Your task to perform on an android device: toggle notifications settings in the gmail app Image 0: 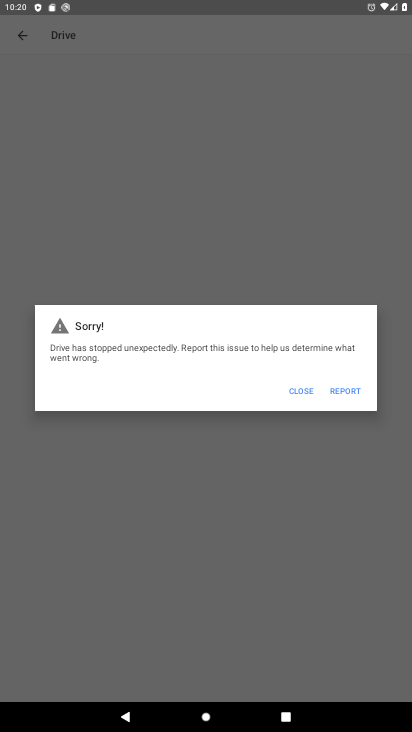
Step 0: press home button
Your task to perform on an android device: toggle notifications settings in the gmail app Image 1: 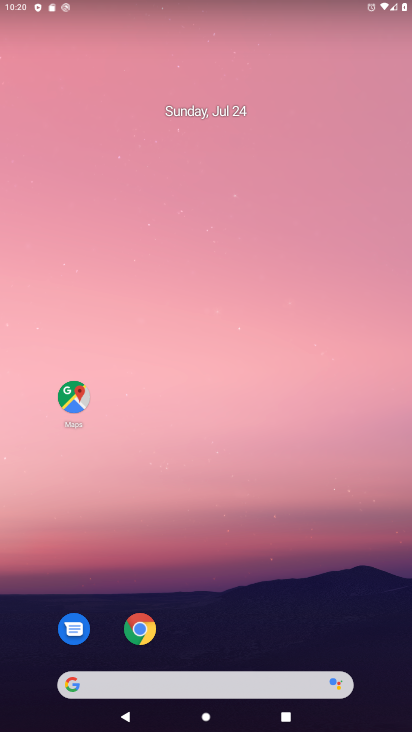
Step 1: drag from (182, 679) to (280, 190)
Your task to perform on an android device: toggle notifications settings in the gmail app Image 2: 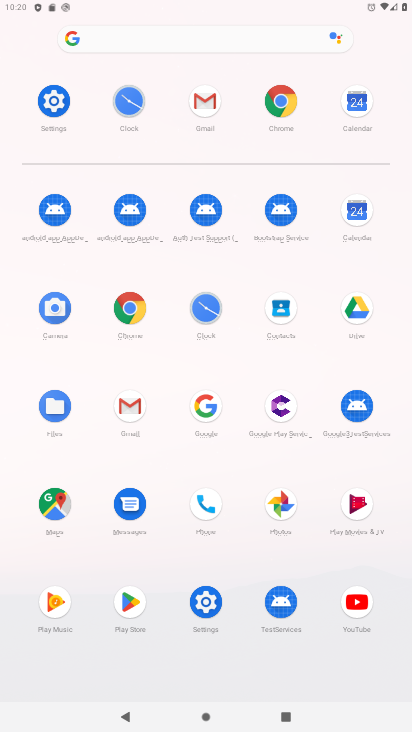
Step 2: click (204, 99)
Your task to perform on an android device: toggle notifications settings in the gmail app Image 3: 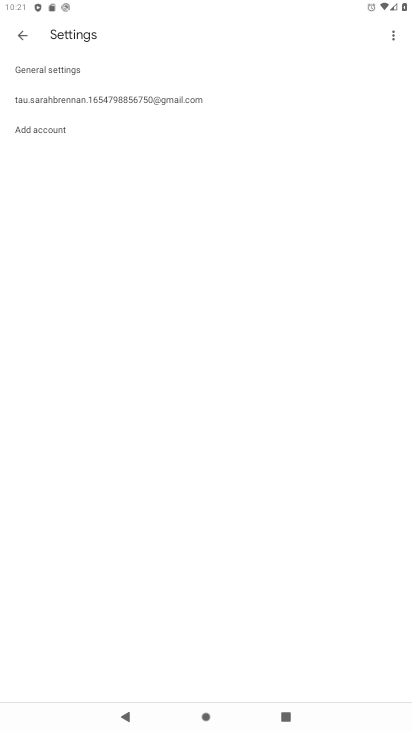
Step 3: click (70, 100)
Your task to perform on an android device: toggle notifications settings in the gmail app Image 4: 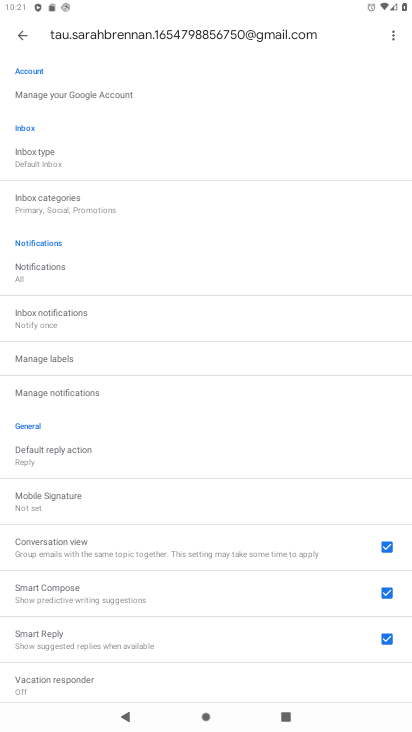
Step 4: click (61, 392)
Your task to perform on an android device: toggle notifications settings in the gmail app Image 5: 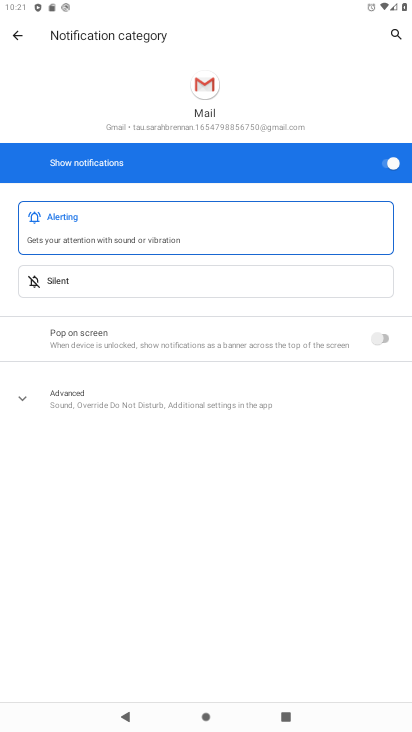
Step 5: click (389, 163)
Your task to perform on an android device: toggle notifications settings in the gmail app Image 6: 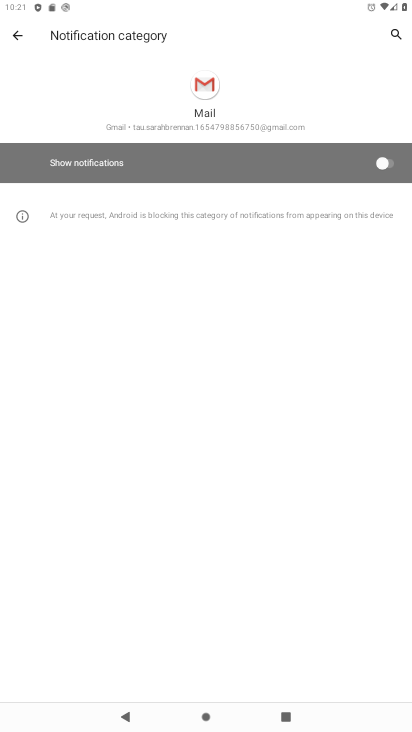
Step 6: task complete